Your task to perform on an android device: Open battery settings Image 0: 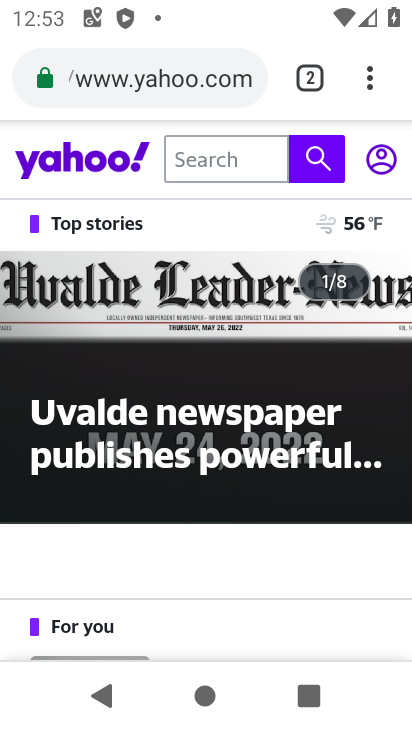
Step 0: press home button
Your task to perform on an android device: Open battery settings Image 1: 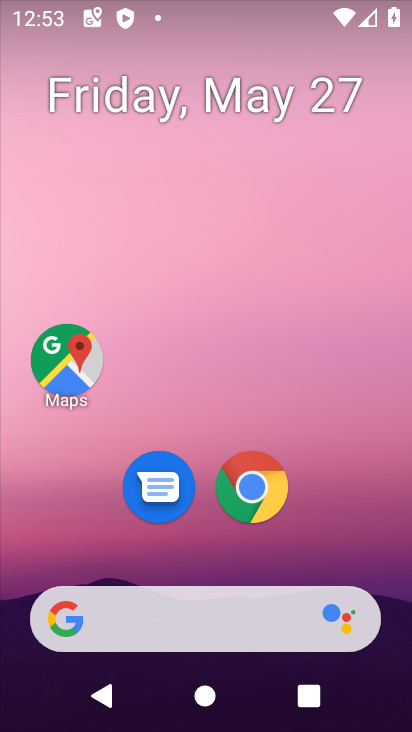
Step 1: drag from (256, 488) to (270, 334)
Your task to perform on an android device: Open battery settings Image 2: 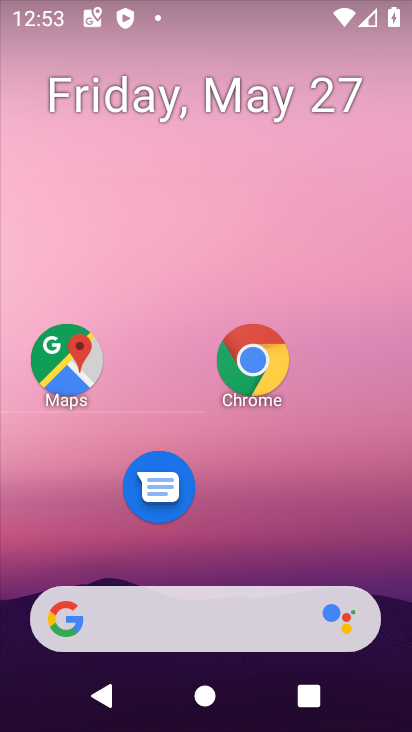
Step 2: drag from (283, 522) to (299, 60)
Your task to perform on an android device: Open battery settings Image 3: 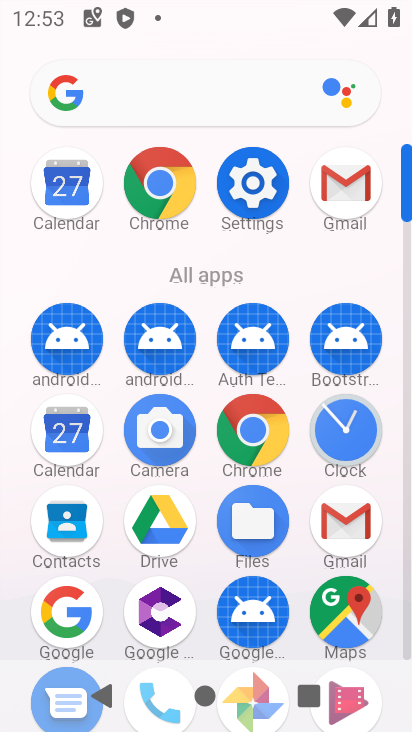
Step 3: click (253, 182)
Your task to perform on an android device: Open battery settings Image 4: 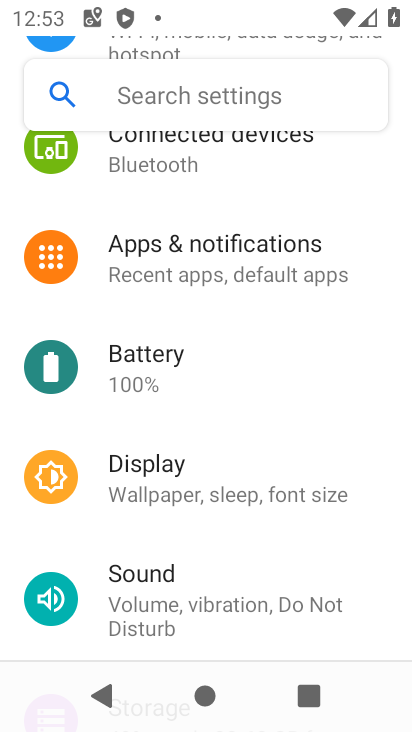
Step 4: click (165, 374)
Your task to perform on an android device: Open battery settings Image 5: 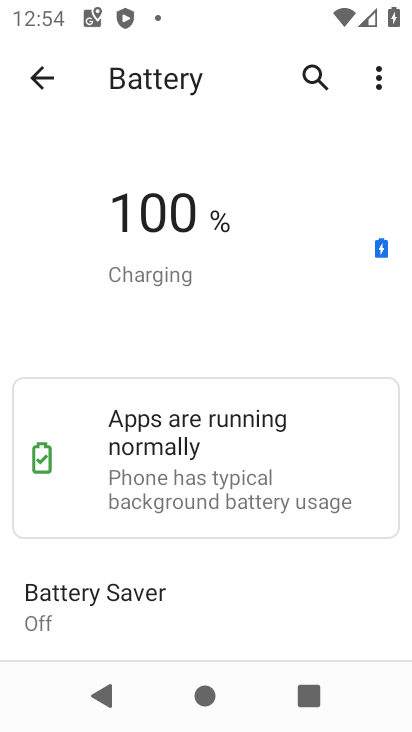
Step 5: task complete